Your task to perform on an android device: Open CNN.com Image 0: 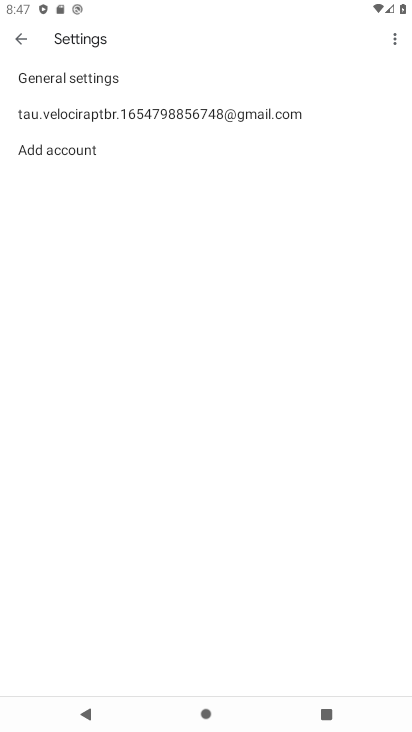
Step 0: press home button
Your task to perform on an android device: Open CNN.com Image 1: 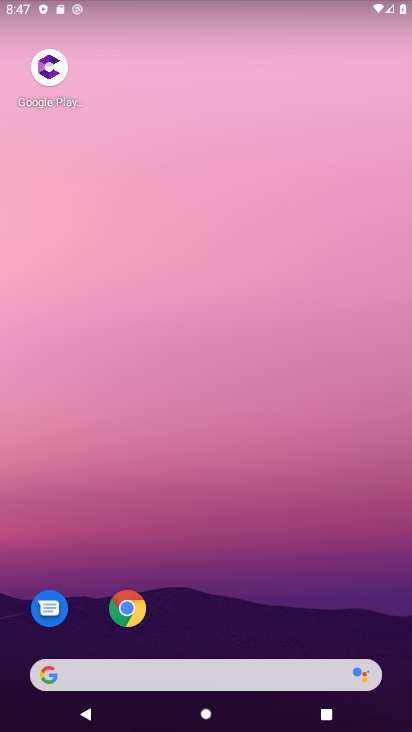
Step 1: drag from (287, 558) to (266, 33)
Your task to perform on an android device: Open CNN.com Image 2: 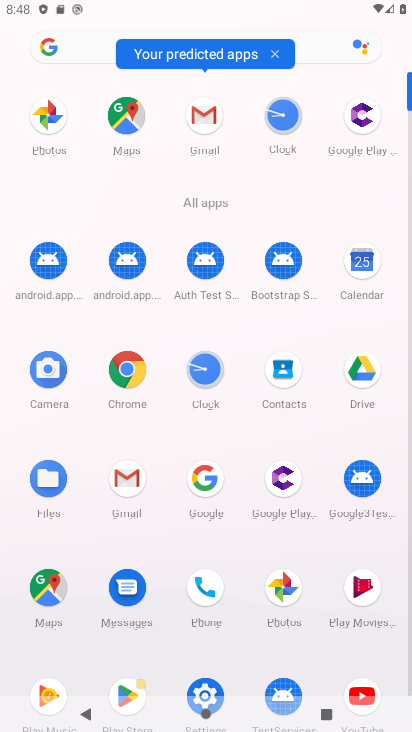
Step 2: click (131, 374)
Your task to perform on an android device: Open CNN.com Image 3: 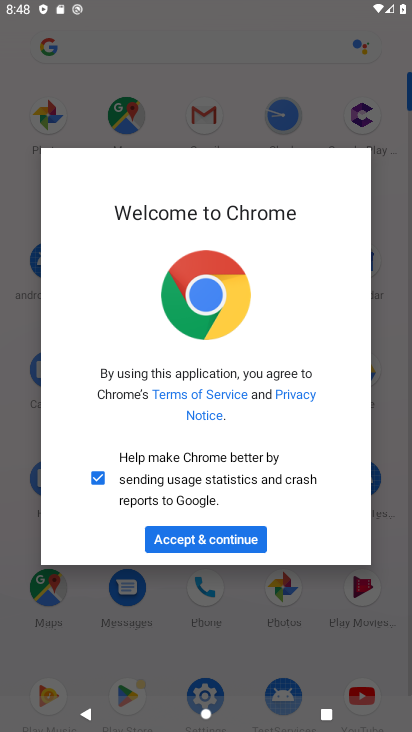
Step 3: click (216, 537)
Your task to perform on an android device: Open CNN.com Image 4: 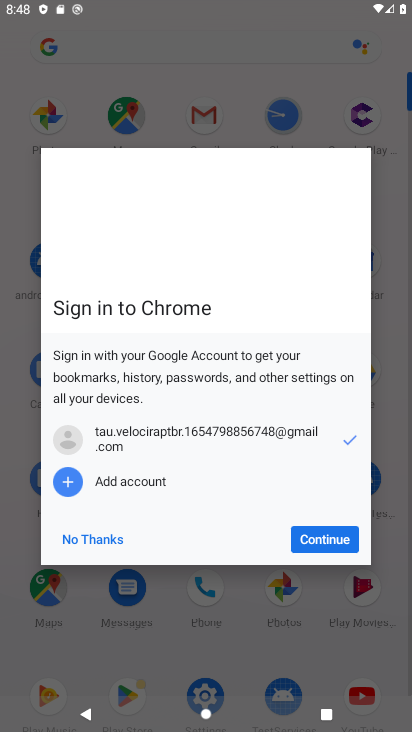
Step 4: click (92, 545)
Your task to perform on an android device: Open CNN.com Image 5: 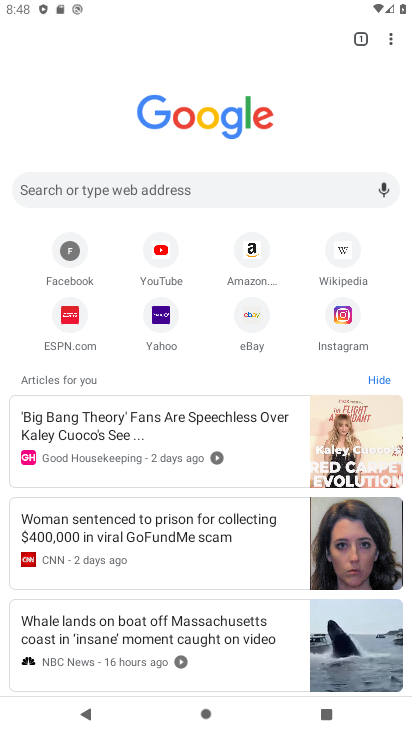
Step 5: click (195, 181)
Your task to perform on an android device: Open CNN.com Image 6: 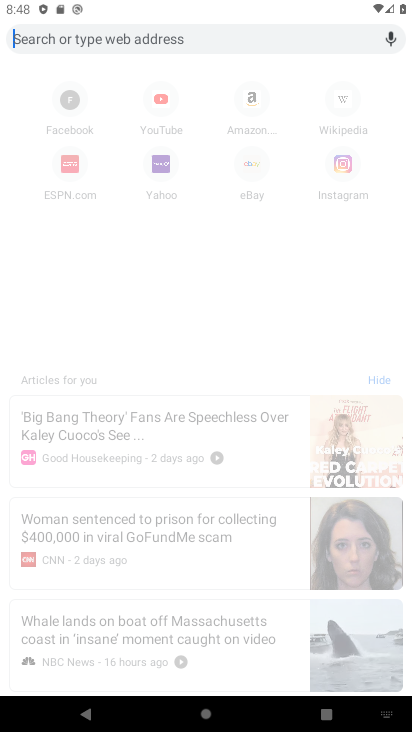
Step 6: type "CNN.com"
Your task to perform on an android device: Open CNN.com Image 7: 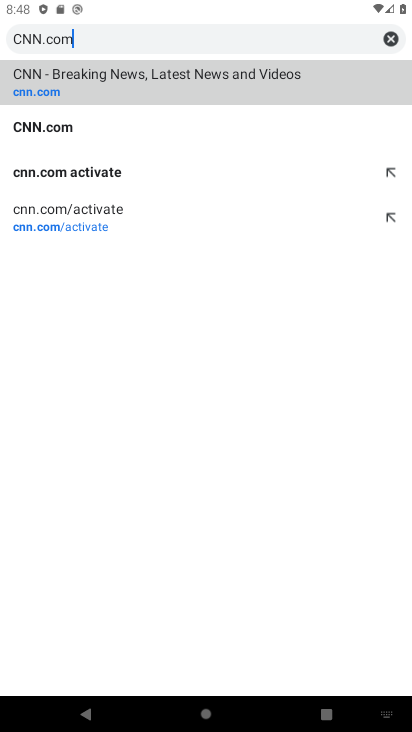
Step 7: click (36, 122)
Your task to perform on an android device: Open CNN.com Image 8: 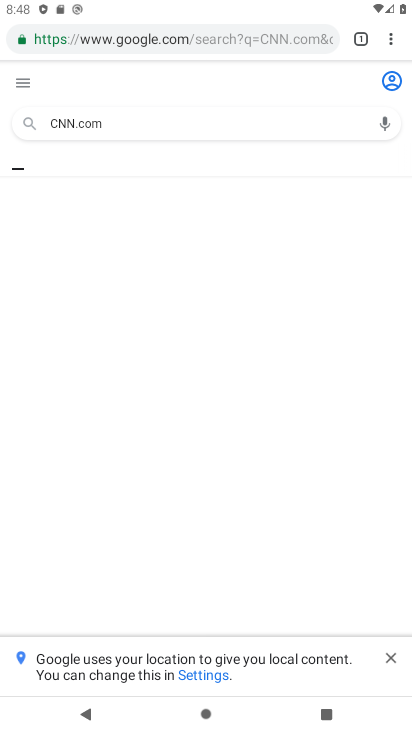
Step 8: task complete